Your task to perform on an android device: Open CNN.com Image 0: 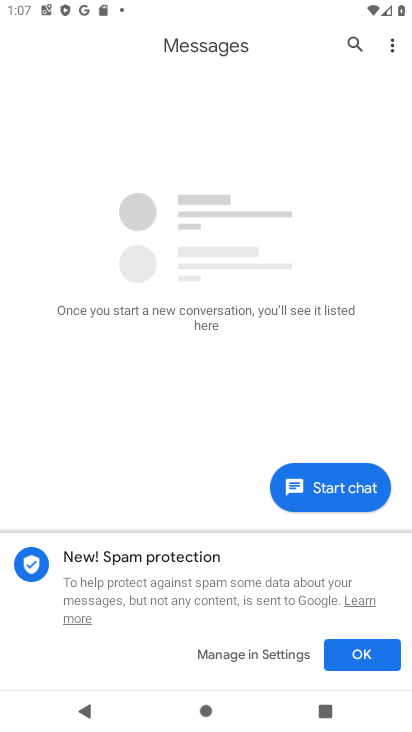
Step 0: press home button
Your task to perform on an android device: Open CNN.com Image 1: 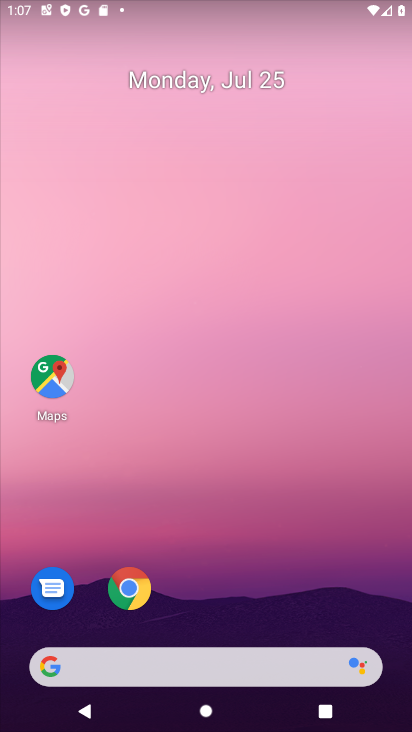
Step 1: drag from (217, 580) to (143, 89)
Your task to perform on an android device: Open CNN.com Image 2: 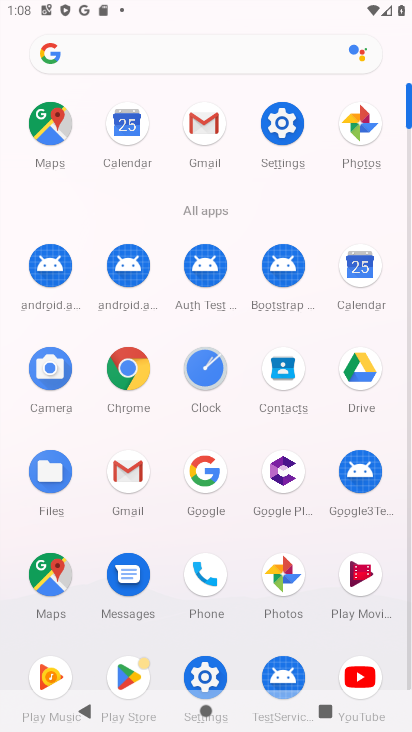
Step 2: click (123, 402)
Your task to perform on an android device: Open CNN.com Image 3: 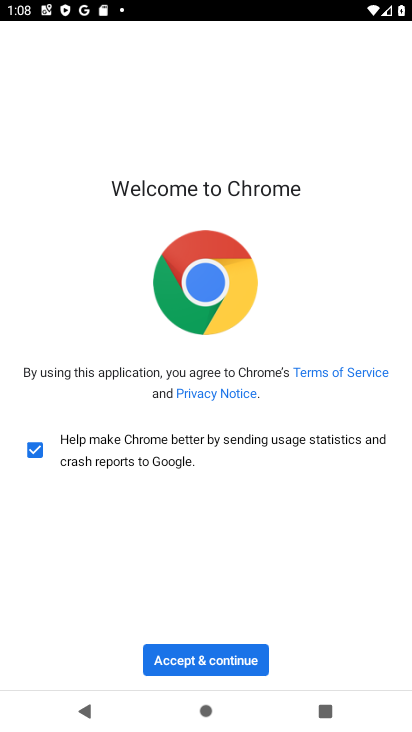
Step 3: click (181, 655)
Your task to perform on an android device: Open CNN.com Image 4: 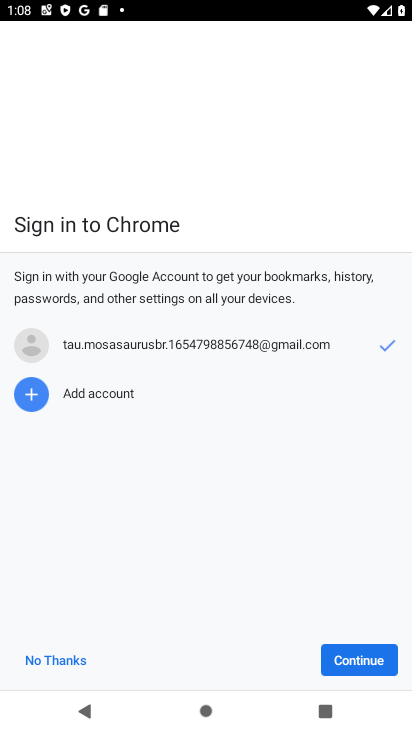
Step 4: click (345, 660)
Your task to perform on an android device: Open CNN.com Image 5: 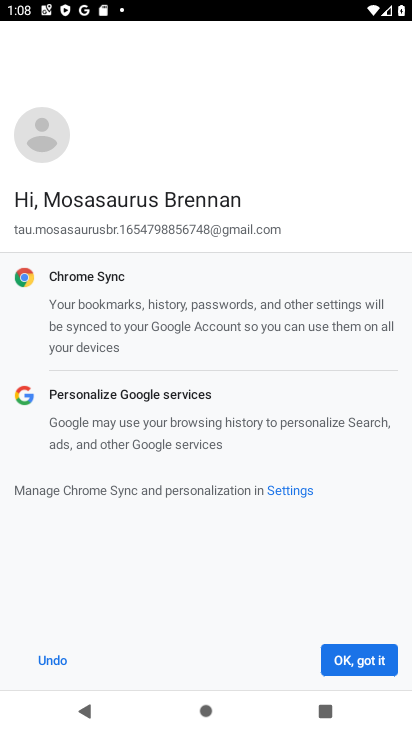
Step 5: click (345, 660)
Your task to perform on an android device: Open CNN.com Image 6: 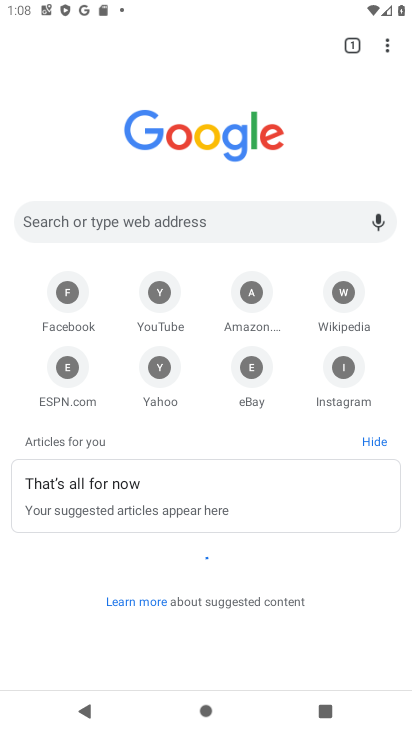
Step 6: click (172, 205)
Your task to perform on an android device: Open CNN.com Image 7: 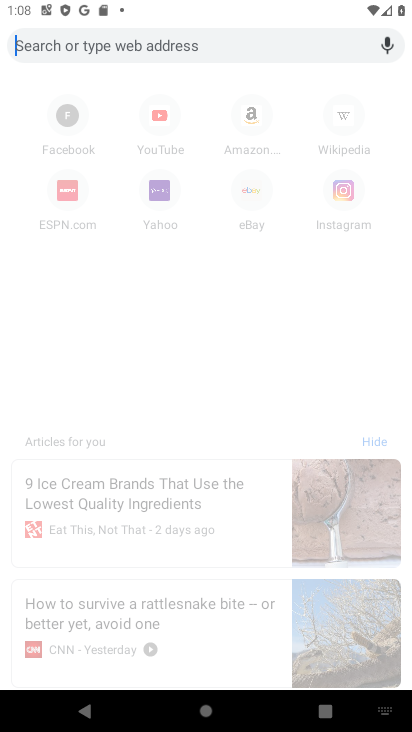
Step 7: type "www.cnn.com"
Your task to perform on an android device: Open CNN.com Image 8: 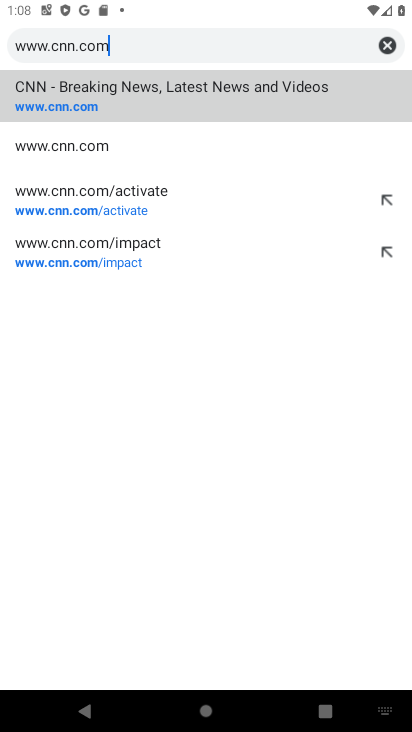
Step 8: click (86, 110)
Your task to perform on an android device: Open CNN.com Image 9: 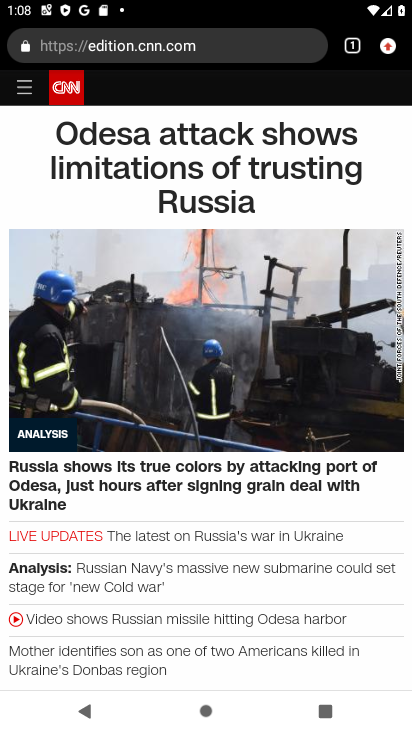
Step 9: task complete